Your task to perform on an android device: turn on wifi Image 0: 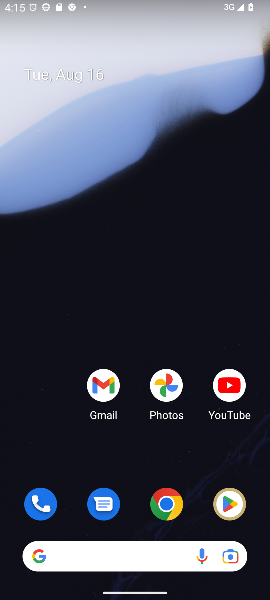
Step 0: drag from (130, 472) to (116, 48)
Your task to perform on an android device: turn on wifi Image 1: 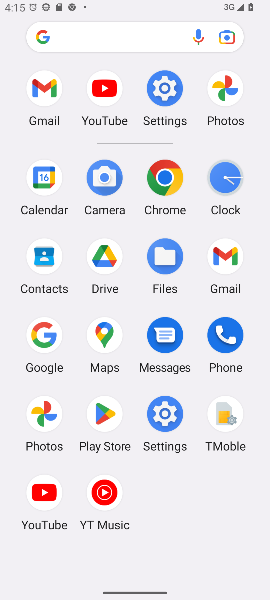
Step 1: click (163, 86)
Your task to perform on an android device: turn on wifi Image 2: 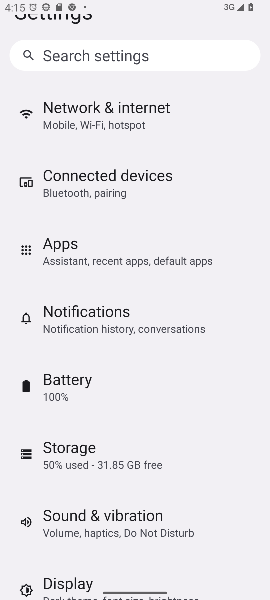
Step 2: click (109, 108)
Your task to perform on an android device: turn on wifi Image 3: 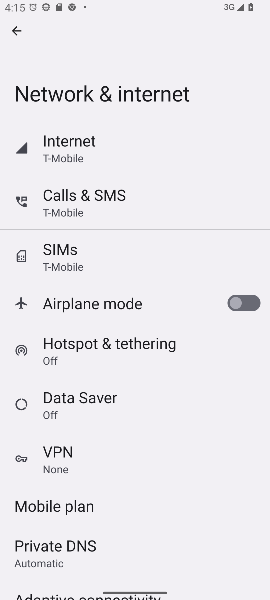
Step 3: click (74, 141)
Your task to perform on an android device: turn on wifi Image 4: 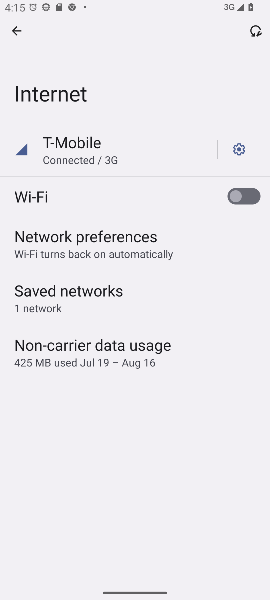
Step 4: click (232, 194)
Your task to perform on an android device: turn on wifi Image 5: 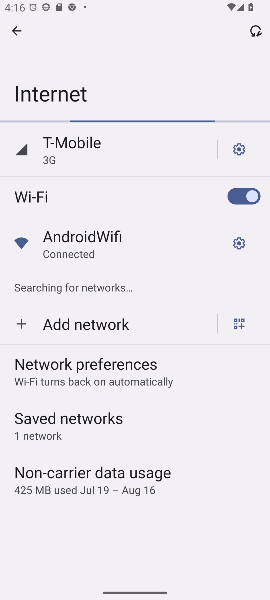
Step 5: task complete